Your task to perform on an android device: Go to location settings Image 0: 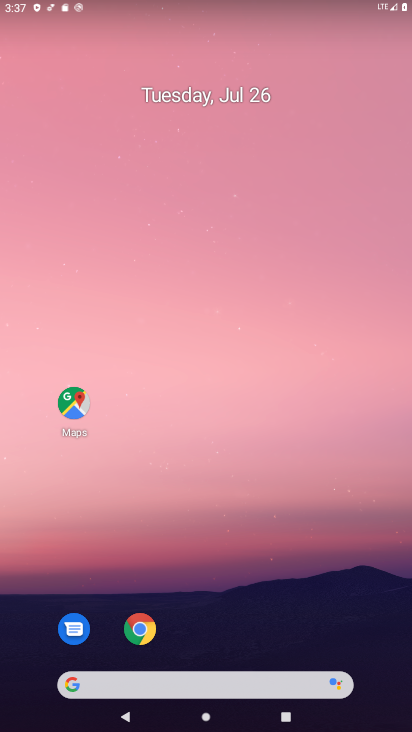
Step 0: drag from (235, 726) to (241, 195)
Your task to perform on an android device: Go to location settings Image 1: 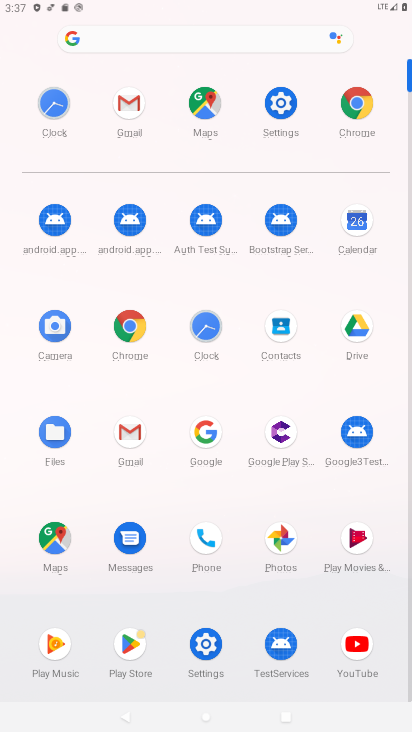
Step 1: click (282, 95)
Your task to perform on an android device: Go to location settings Image 2: 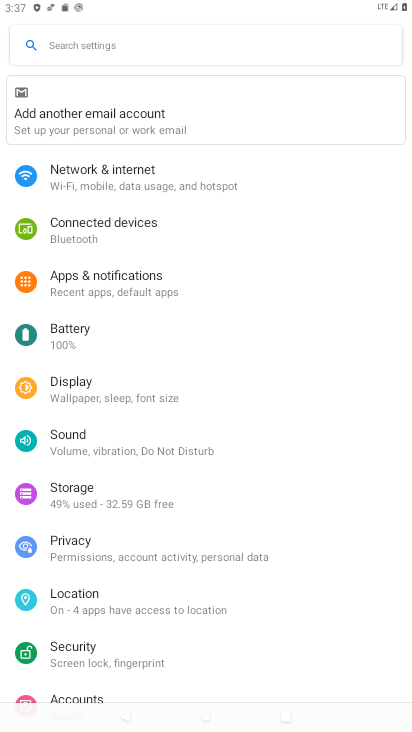
Step 2: click (73, 600)
Your task to perform on an android device: Go to location settings Image 3: 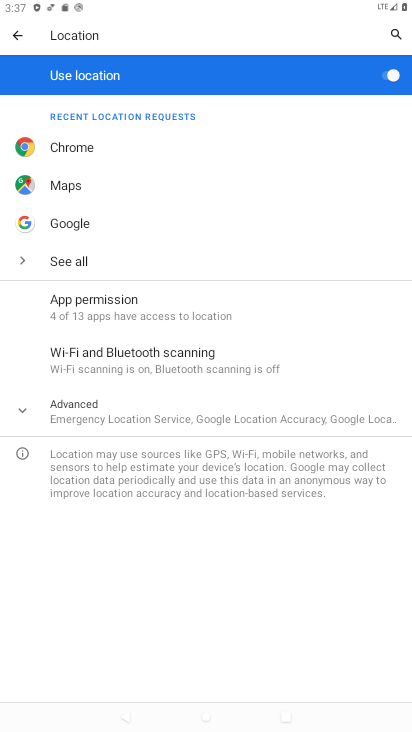
Step 3: task complete